Your task to perform on an android device: change timer sound Image 0: 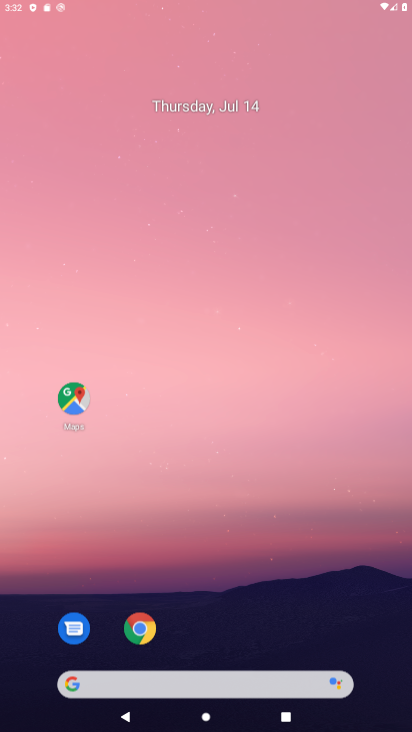
Step 0: click (246, 192)
Your task to perform on an android device: change timer sound Image 1: 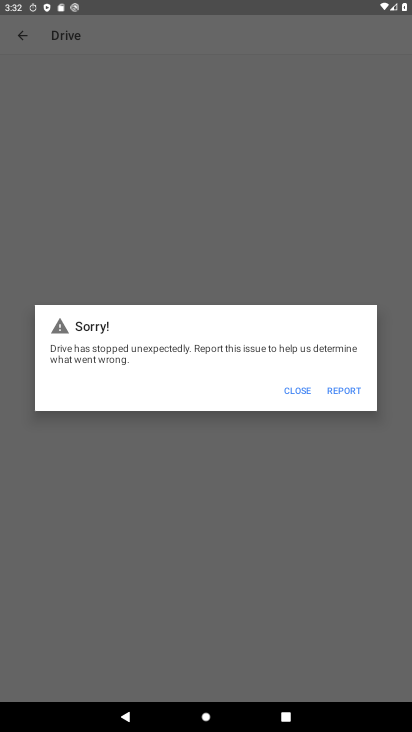
Step 1: press home button
Your task to perform on an android device: change timer sound Image 2: 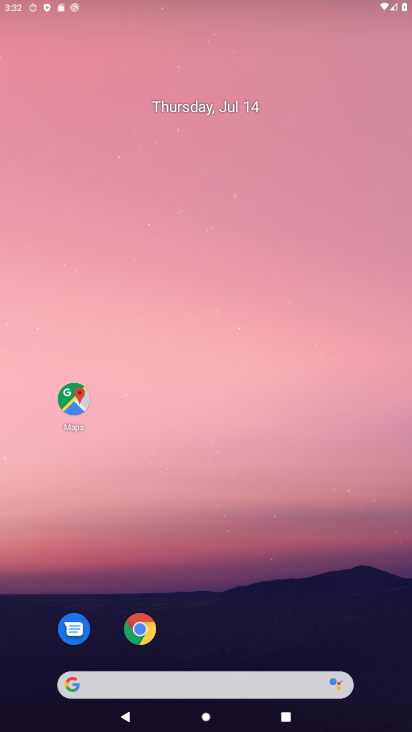
Step 2: drag from (227, 613) to (226, 192)
Your task to perform on an android device: change timer sound Image 3: 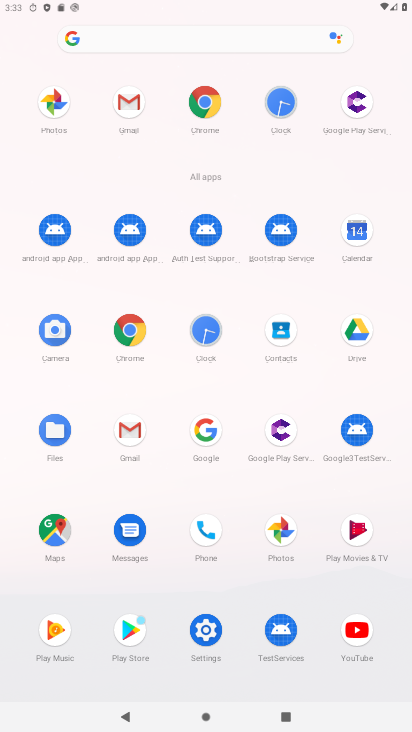
Step 3: click (205, 329)
Your task to perform on an android device: change timer sound Image 4: 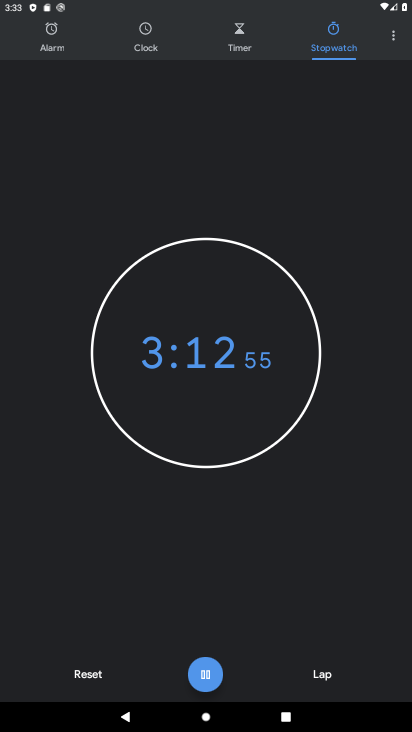
Step 4: click (395, 32)
Your task to perform on an android device: change timer sound Image 5: 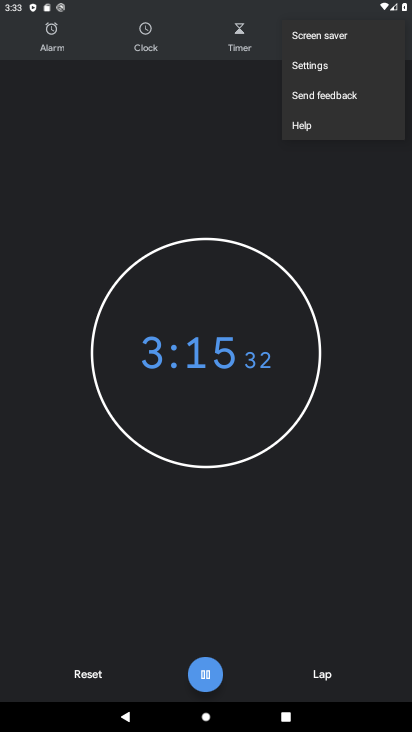
Step 5: click (304, 68)
Your task to perform on an android device: change timer sound Image 6: 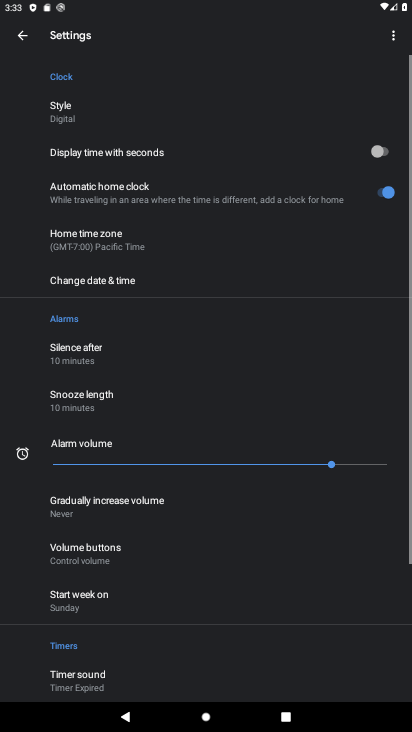
Step 6: drag from (212, 598) to (204, 317)
Your task to perform on an android device: change timer sound Image 7: 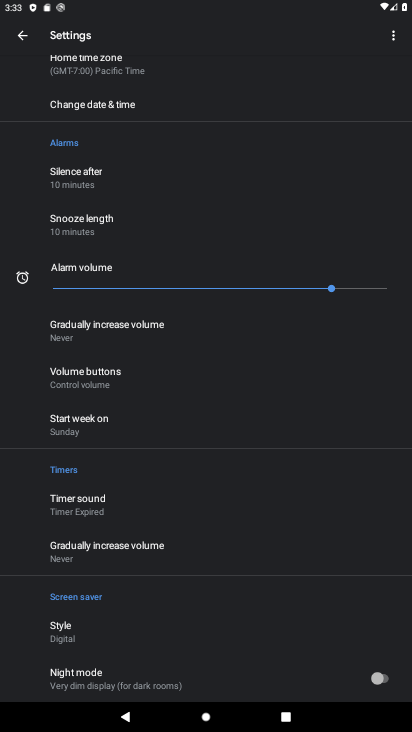
Step 7: click (83, 498)
Your task to perform on an android device: change timer sound Image 8: 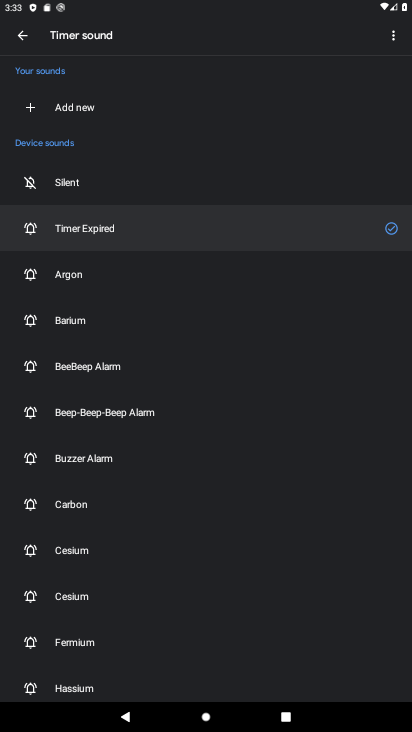
Step 8: click (134, 285)
Your task to perform on an android device: change timer sound Image 9: 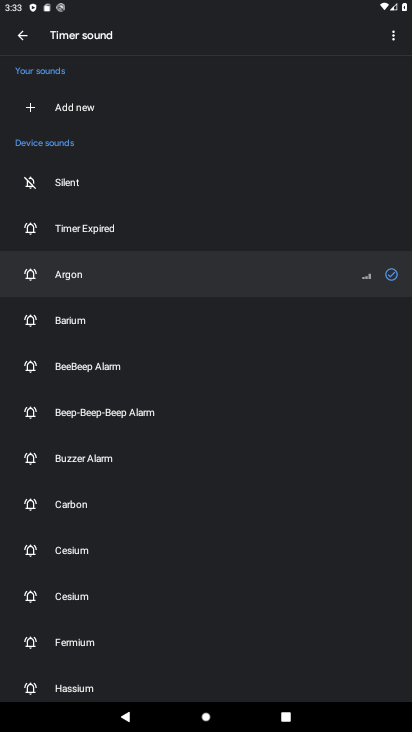
Step 9: click (389, 265)
Your task to perform on an android device: change timer sound Image 10: 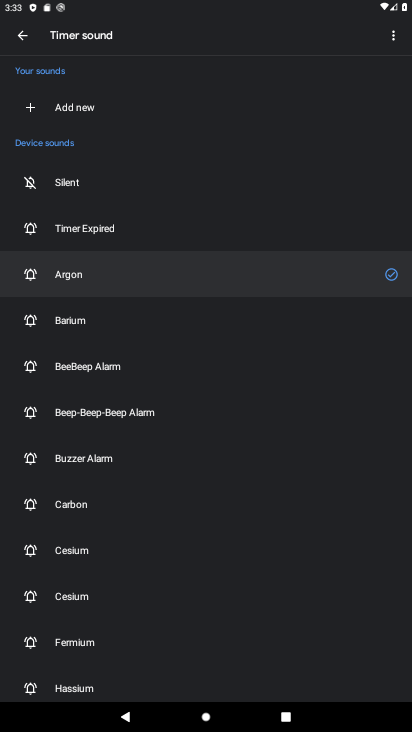
Step 10: task complete